Your task to perform on an android device: turn off improve location accuracy Image 0: 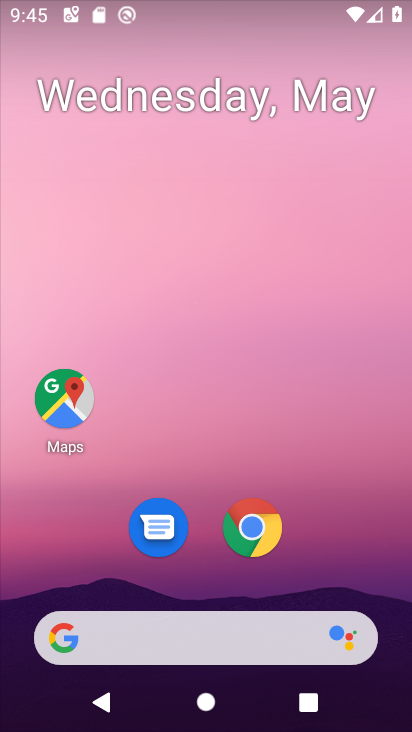
Step 0: drag from (303, 578) to (390, 132)
Your task to perform on an android device: turn off improve location accuracy Image 1: 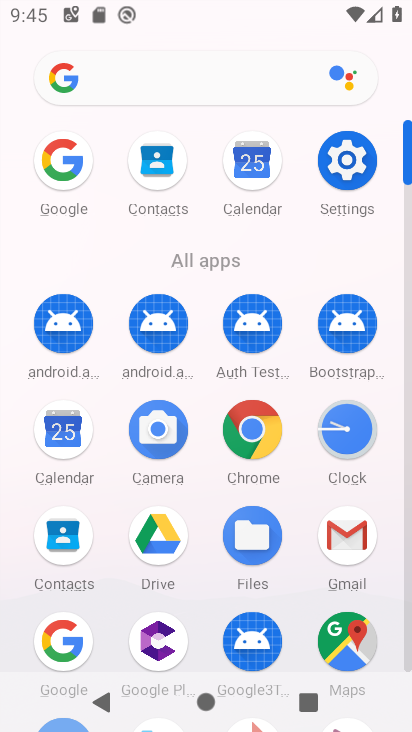
Step 1: click (346, 160)
Your task to perform on an android device: turn off improve location accuracy Image 2: 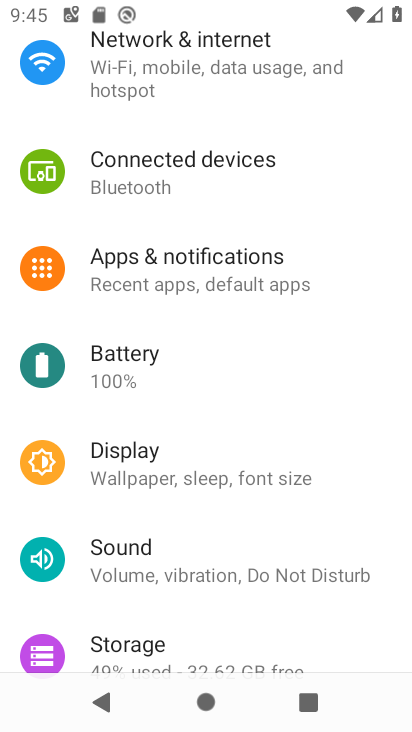
Step 2: drag from (232, 481) to (225, 76)
Your task to perform on an android device: turn off improve location accuracy Image 3: 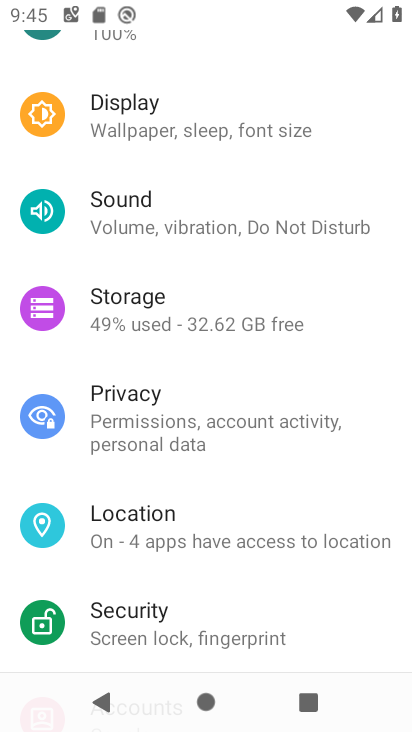
Step 3: click (150, 522)
Your task to perform on an android device: turn off improve location accuracy Image 4: 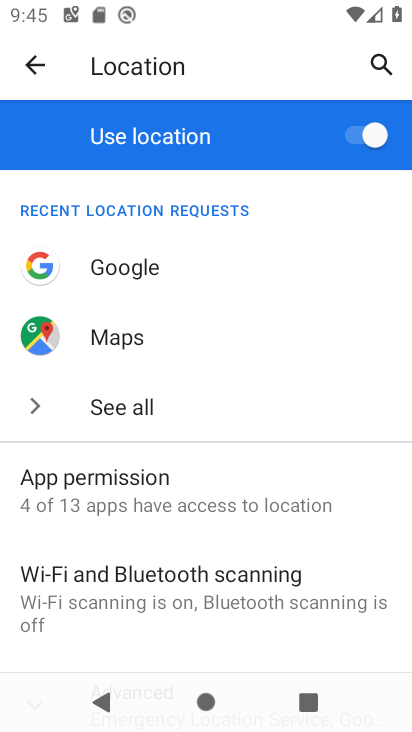
Step 4: drag from (225, 606) to (261, 248)
Your task to perform on an android device: turn off improve location accuracy Image 5: 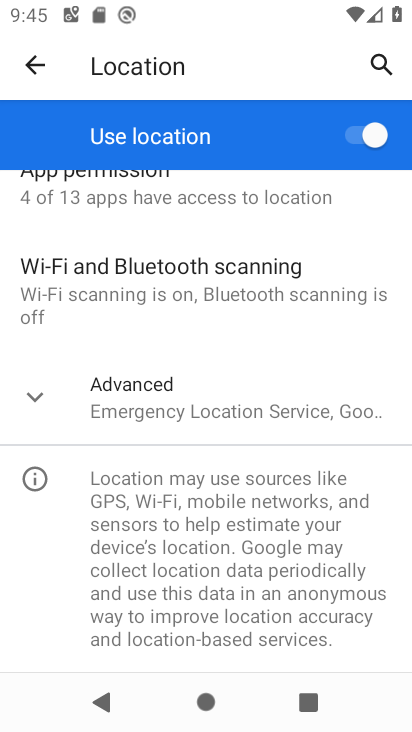
Step 5: click (140, 426)
Your task to perform on an android device: turn off improve location accuracy Image 6: 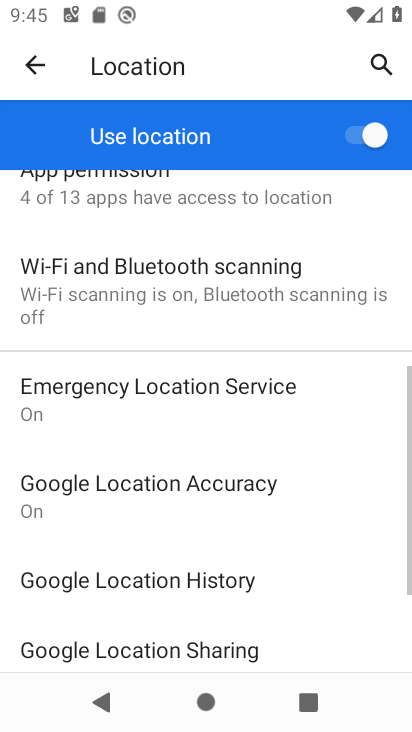
Step 6: click (214, 503)
Your task to perform on an android device: turn off improve location accuracy Image 7: 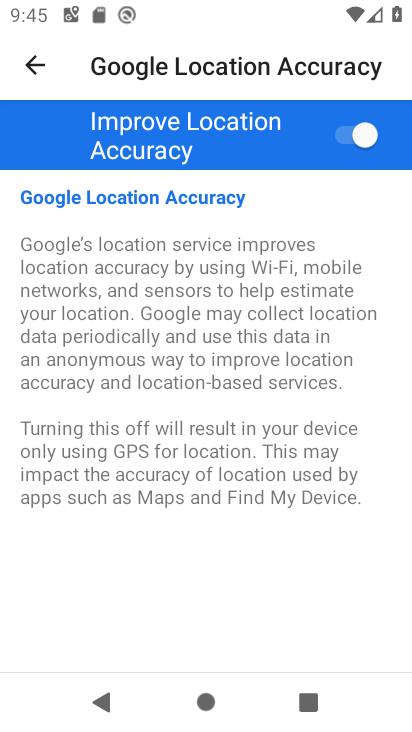
Step 7: click (374, 127)
Your task to perform on an android device: turn off improve location accuracy Image 8: 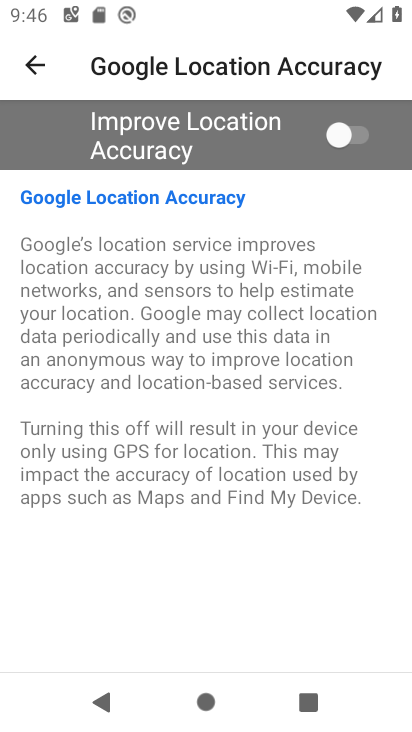
Step 8: task complete